Your task to perform on an android device: Open Google Maps and go to "Timeline" Image 0: 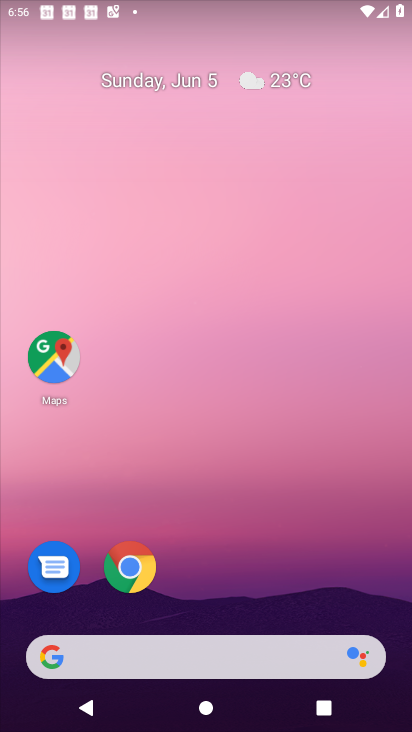
Step 0: drag from (357, 624) to (215, 36)
Your task to perform on an android device: Open Google Maps and go to "Timeline" Image 1: 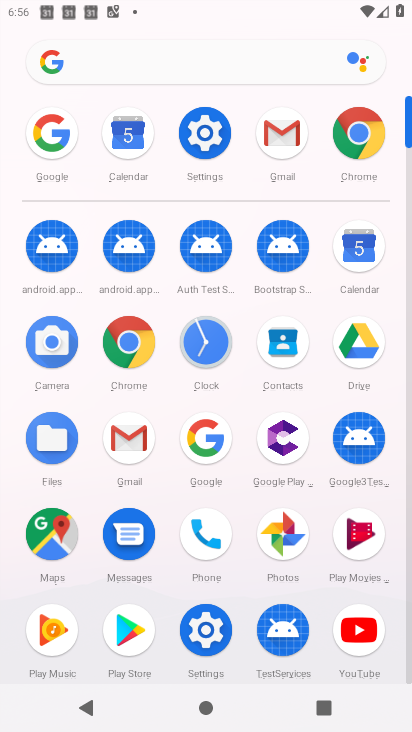
Step 1: click (38, 518)
Your task to perform on an android device: Open Google Maps and go to "Timeline" Image 2: 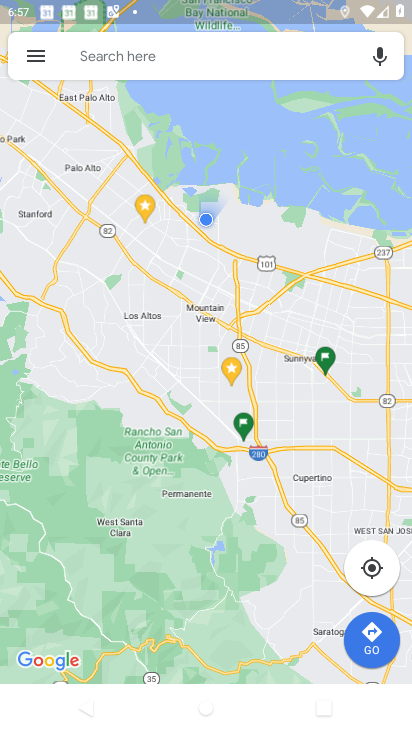
Step 2: click (33, 53)
Your task to perform on an android device: Open Google Maps and go to "Timeline" Image 3: 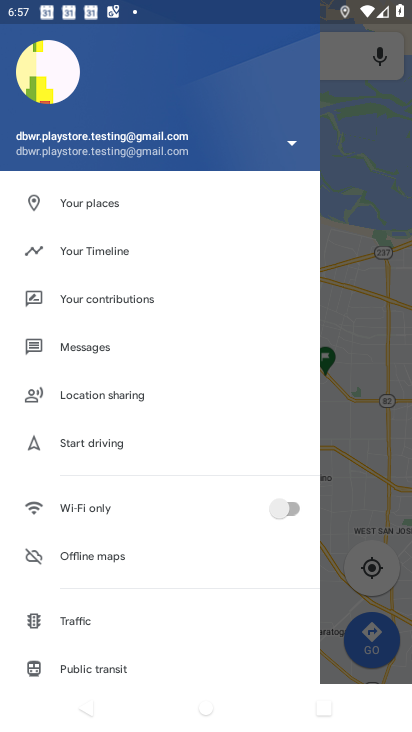
Step 3: click (112, 253)
Your task to perform on an android device: Open Google Maps and go to "Timeline" Image 4: 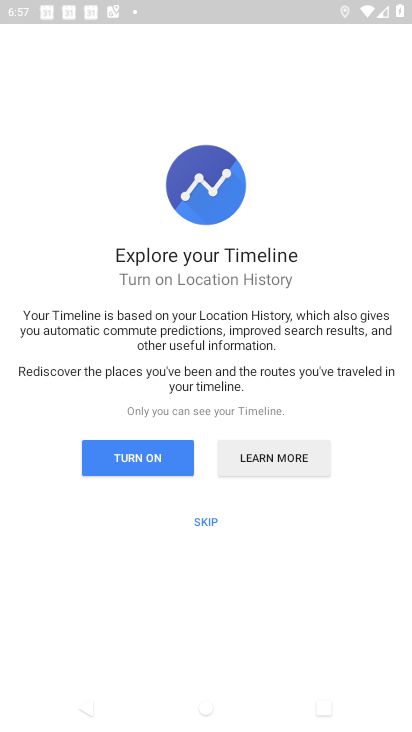
Step 4: task complete